Your task to perform on an android device: Search for pizza restaurants on Maps Image 0: 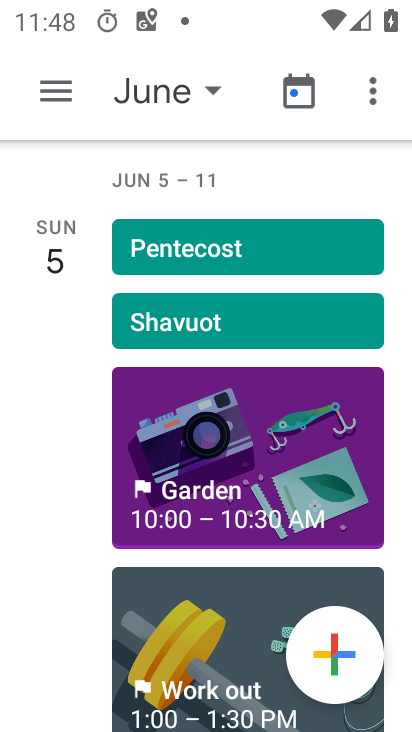
Step 0: press home button
Your task to perform on an android device: Search for pizza restaurants on Maps Image 1: 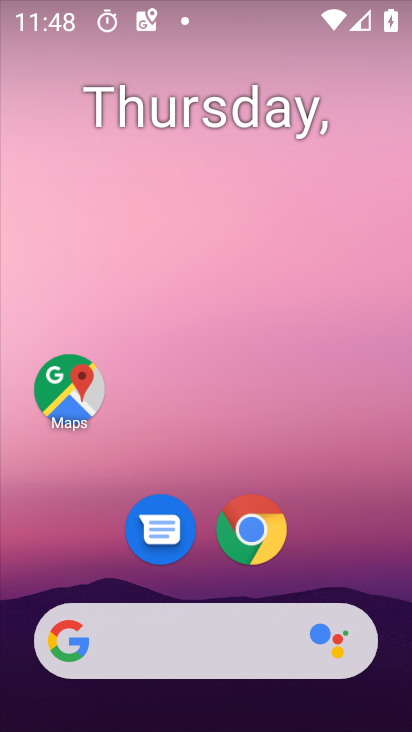
Step 1: click (82, 406)
Your task to perform on an android device: Search for pizza restaurants on Maps Image 2: 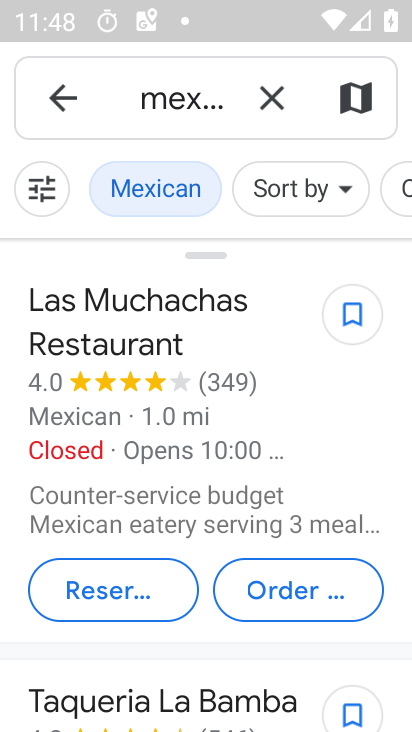
Step 2: click (271, 110)
Your task to perform on an android device: Search for pizza restaurants on Maps Image 3: 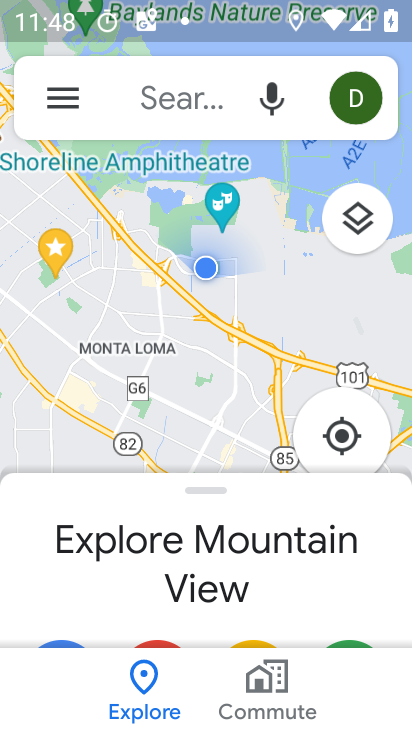
Step 3: click (219, 104)
Your task to perform on an android device: Search for pizza restaurants on Maps Image 4: 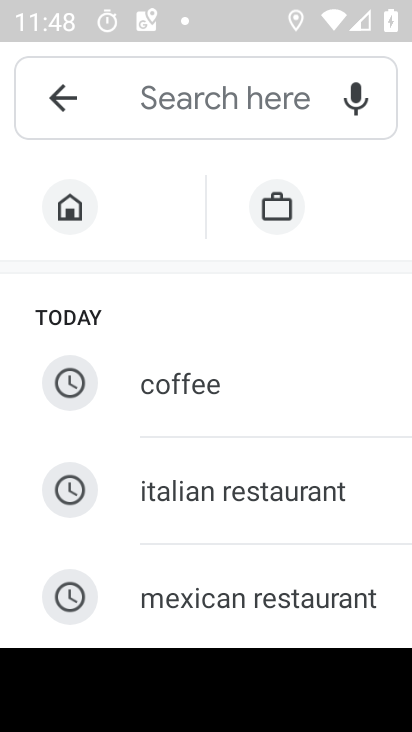
Step 4: drag from (254, 571) to (286, 115)
Your task to perform on an android device: Search for pizza restaurants on Maps Image 5: 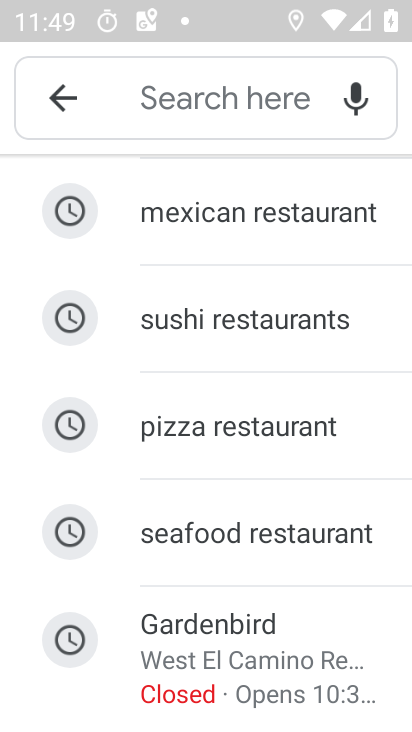
Step 5: click (240, 462)
Your task to perform on an android device: Search for pizza restaurants on Maps Image 6: 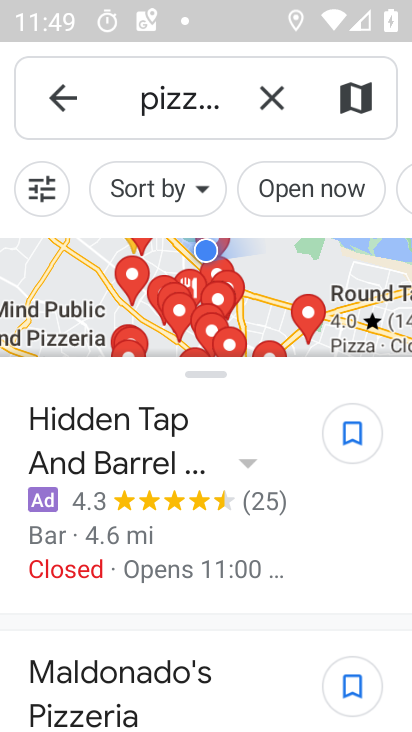
Step 6: task complete